Your task to perform on an android device: Open Youtube and go to the subscriptions tab Image 0: 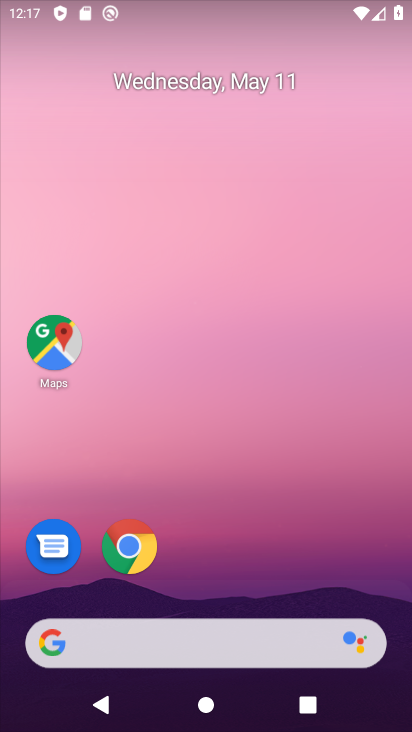
Step 0: drag from (282, 677) to (192, 236)
Your task to perform on an android device: Open Youtube and go to the subscriptions tab Image 1: 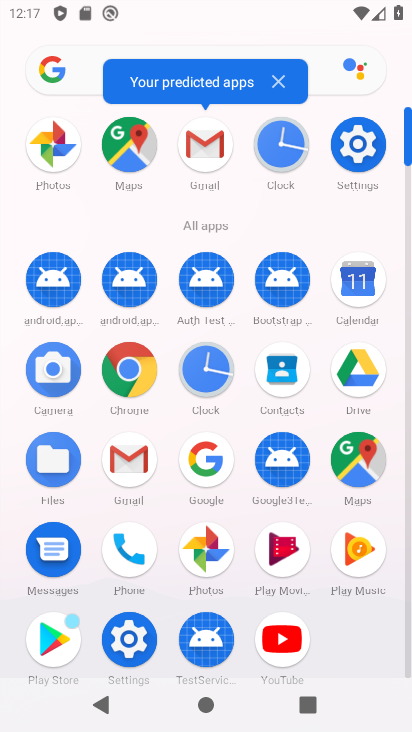
Step 1: click (273, 652)
Your task to perform on an android device: Open Youtube and go to the subscriptions tab Image 2: 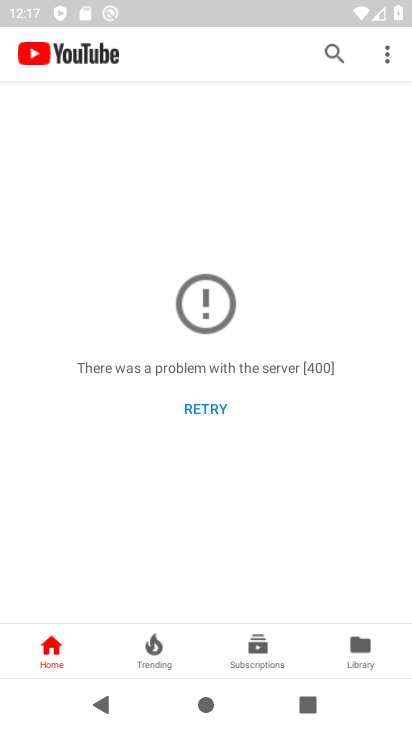
Step 2: click (267, 660)
Your task to perform on an android device: Open Youtube and go to the subscriptions tab Image 3: 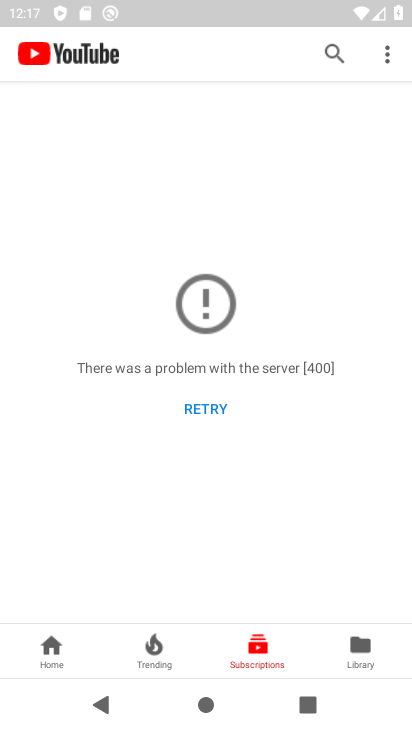
Step 3: task complete